Your task to perform on an android device: Open ESPN.com Image 0: 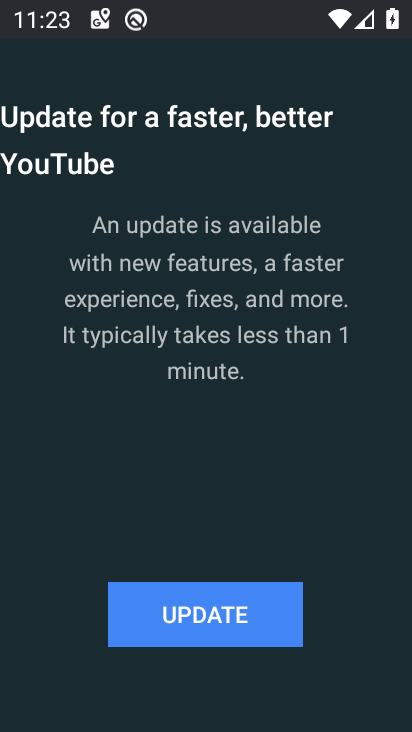
Step 0: press home button
Your task to perform on an android device: Open ESPN.com Image 1: 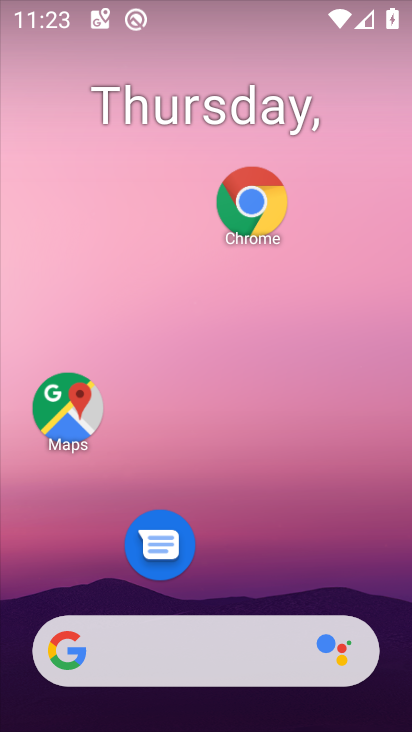
Step 1: click (257, 208)
Your task to perform on an android device: Open ESPN.com Image 2: 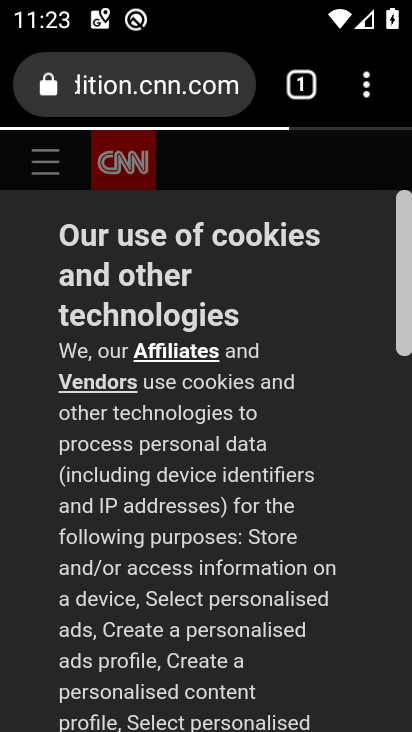
Step 2: press back button
Your task to perform on an android device: Open ESPN.com Image 3: 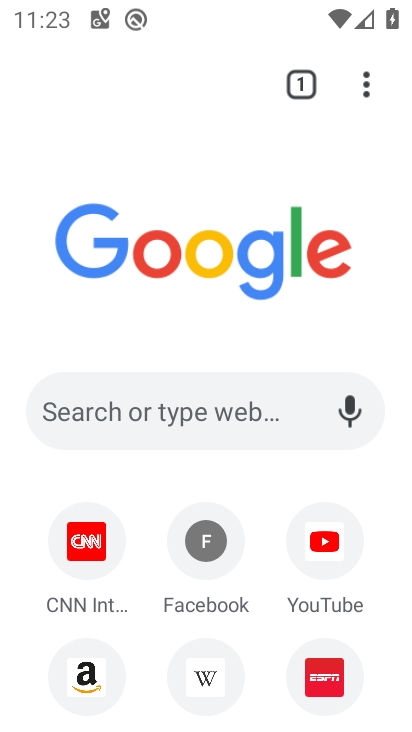
Step 3: click (336, 686)
Your task to perform on an android device: Open ESPN.com Image 4: 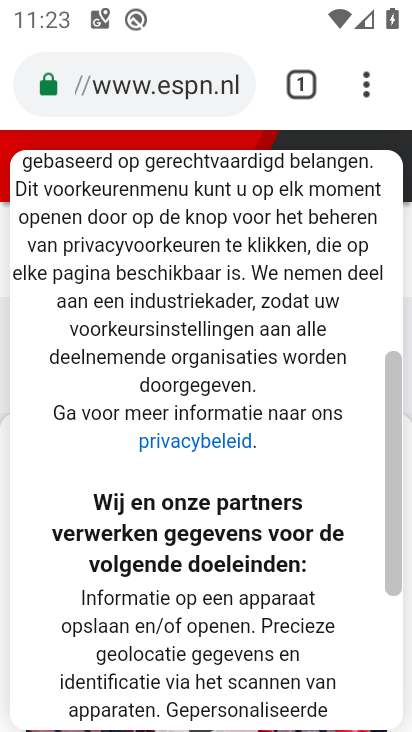
Step 4: task complete